Your task to perform on an android device: turn off improve location accuracy Image 0: 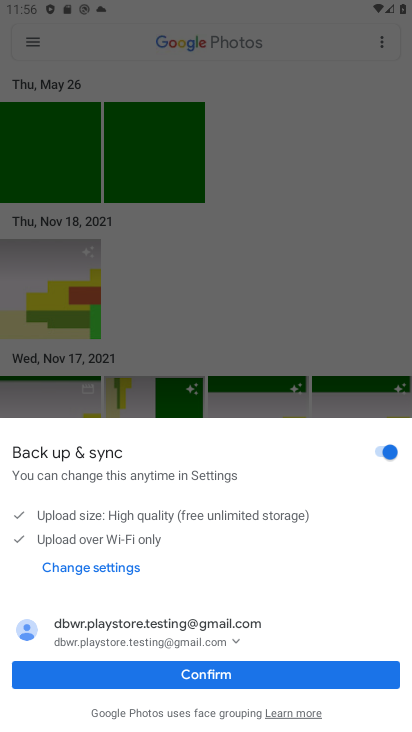
Step 0: press home button
Your task to perform on an android device: turn off improve location accuracy Image 1: 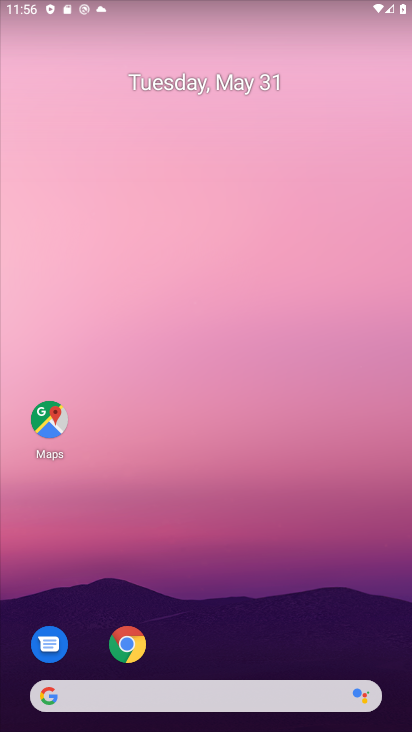
Step 1: drag from (330, 566) to (349, 137)
Your task to perform on an android device: turn off improve location accuracy Image 2: 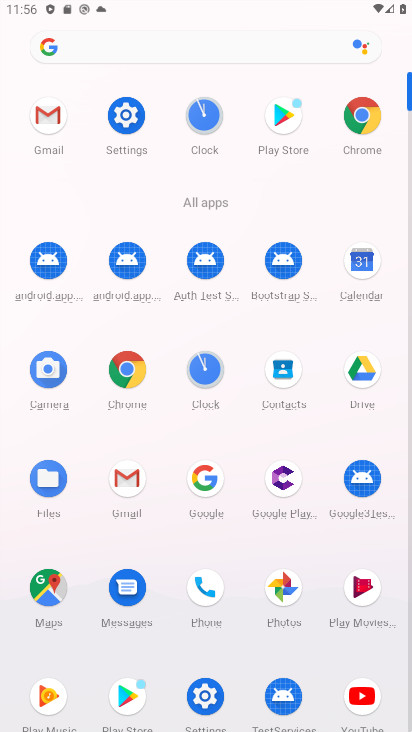
Step 2: click (220, 660)
Your task to perform on an android device: turn off improve location accuracy Image 3: 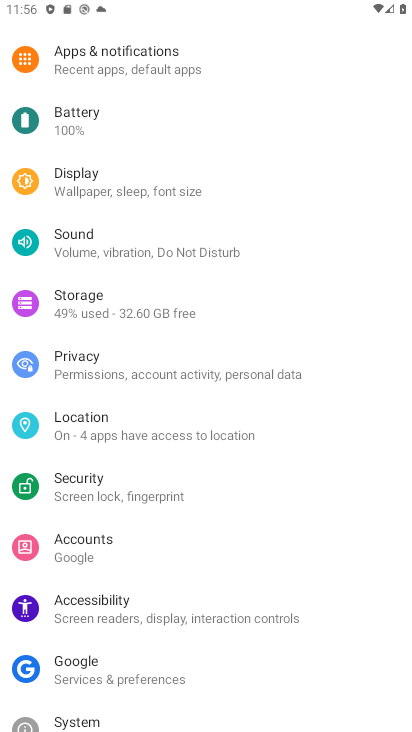
Step 3: click (183, 446)
Your task to perform on an android device: turn off improve location accuracy Image 4: 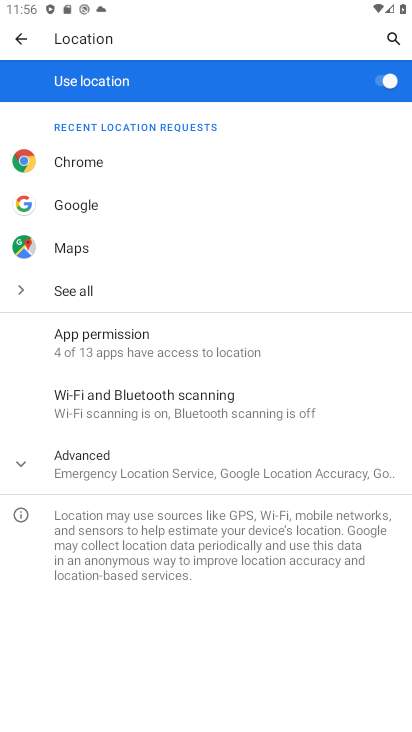
Step 4: click (160, 480)
Your task to perform on an android device: turn off improve location accuracy Image 5: 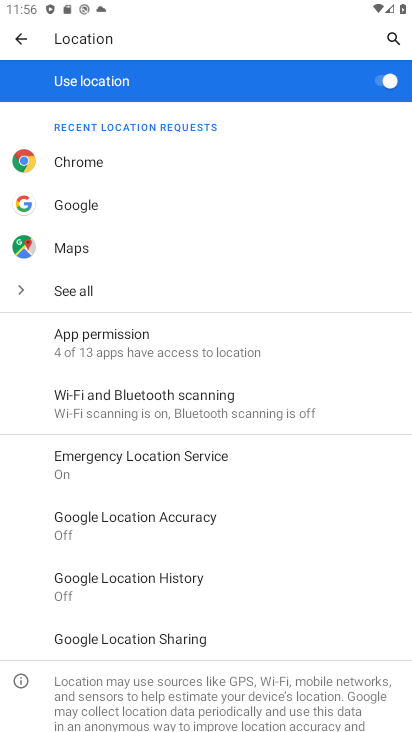
Step 5: click (163, 518)
Your task to perform on an android device: turn off improve location accuracy Image 6: 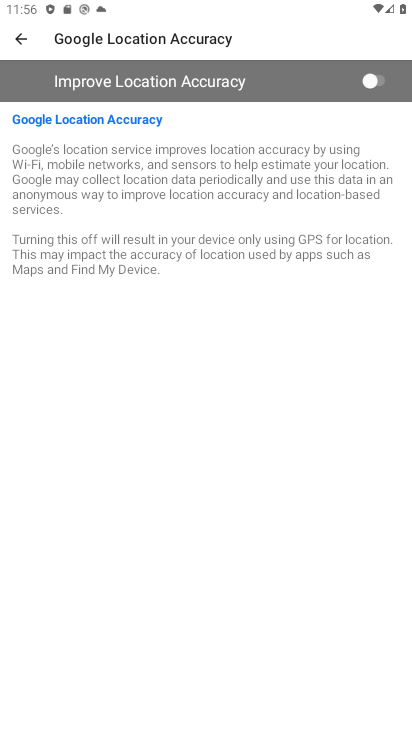
Step 6: task complete